Your task to perform on an android device: Find coffee shops on Maps Image 0: 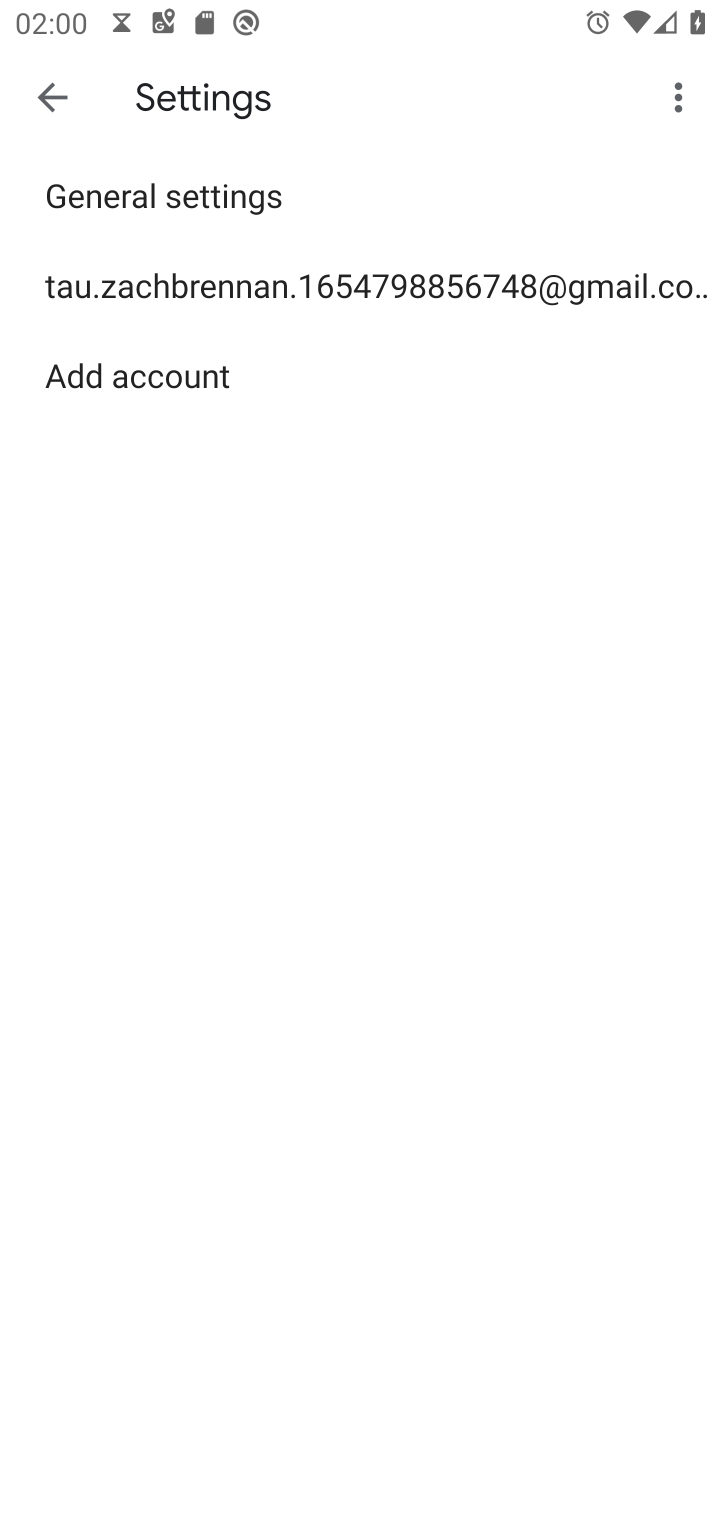
Step 0: press home button
Your task to perform on an android device: Find coffee shops on Maps Image 1: 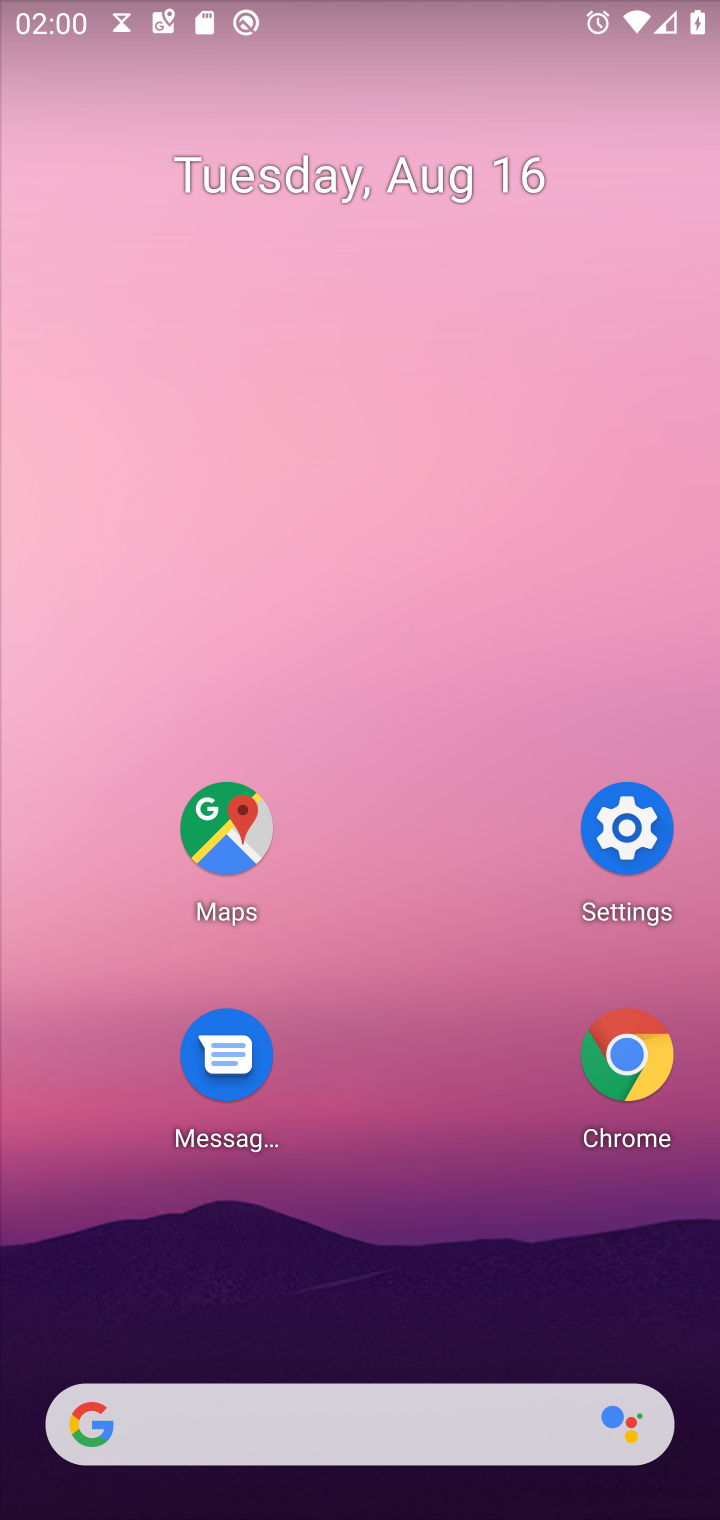
Step 1: click (225, 834)
Your task to perform on an android device: Find coffee shops on Maps Image 2: 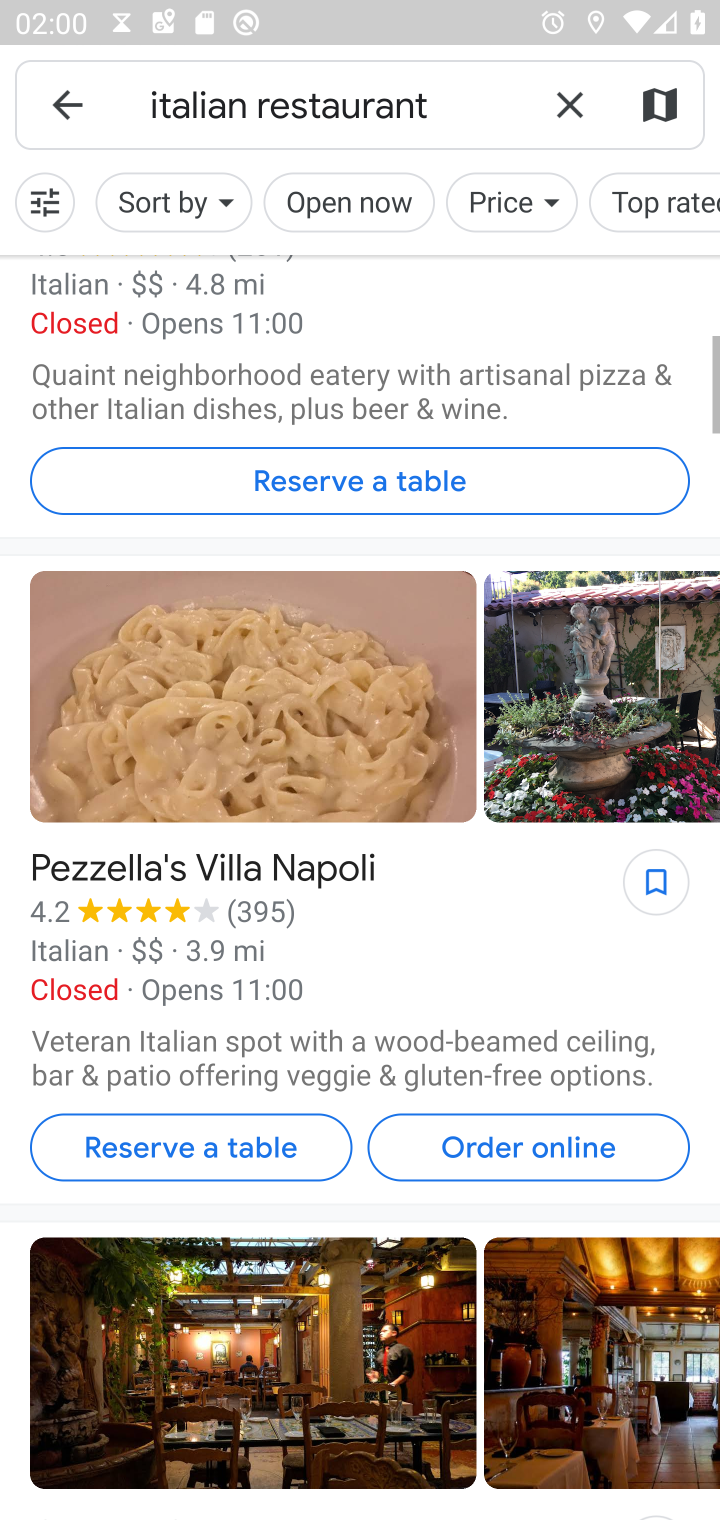
Step 2: click (558, 96)
Your task to perform on an android device: Find coffee shops on Maps Image 3: 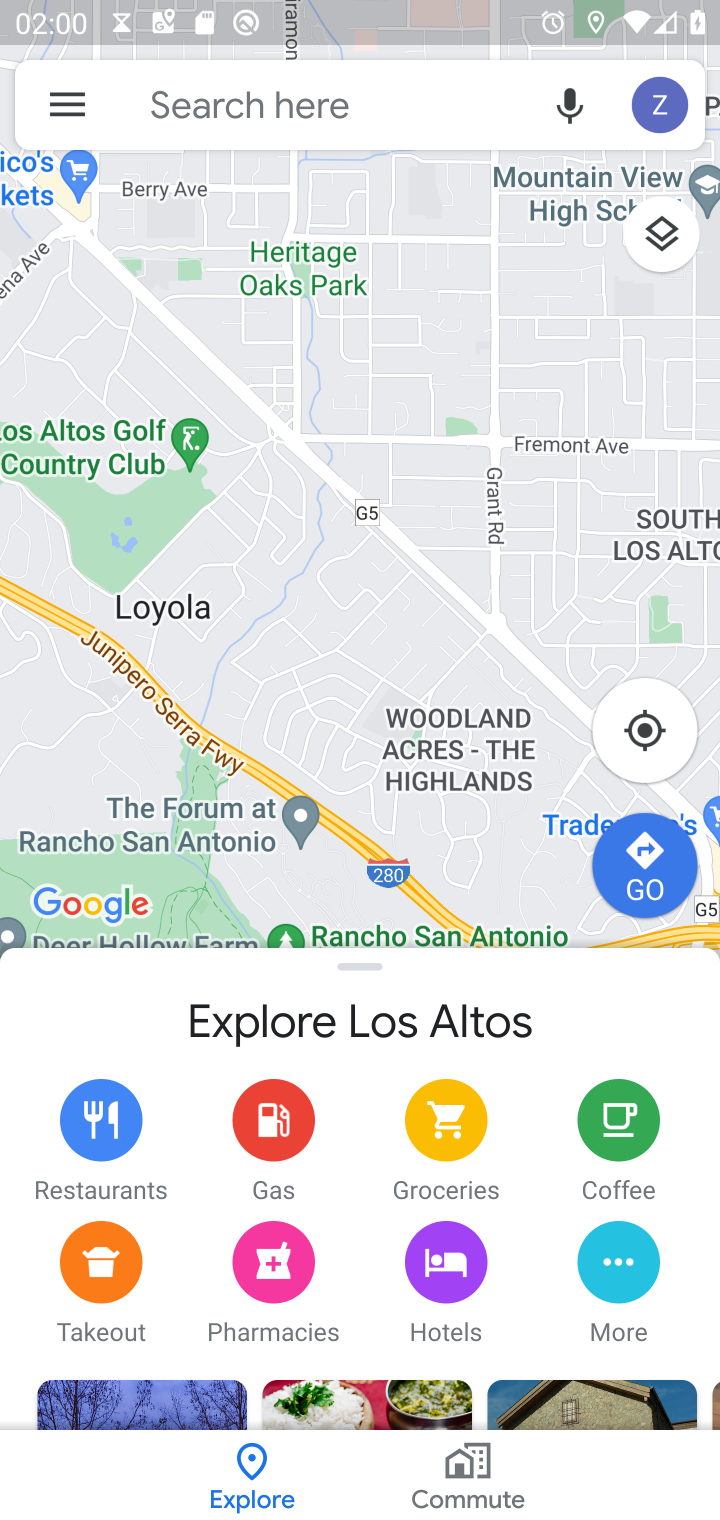
Step 3: click (325, 119)
Your task to perform on an android device: Find coffee shops on Maps Image 4: 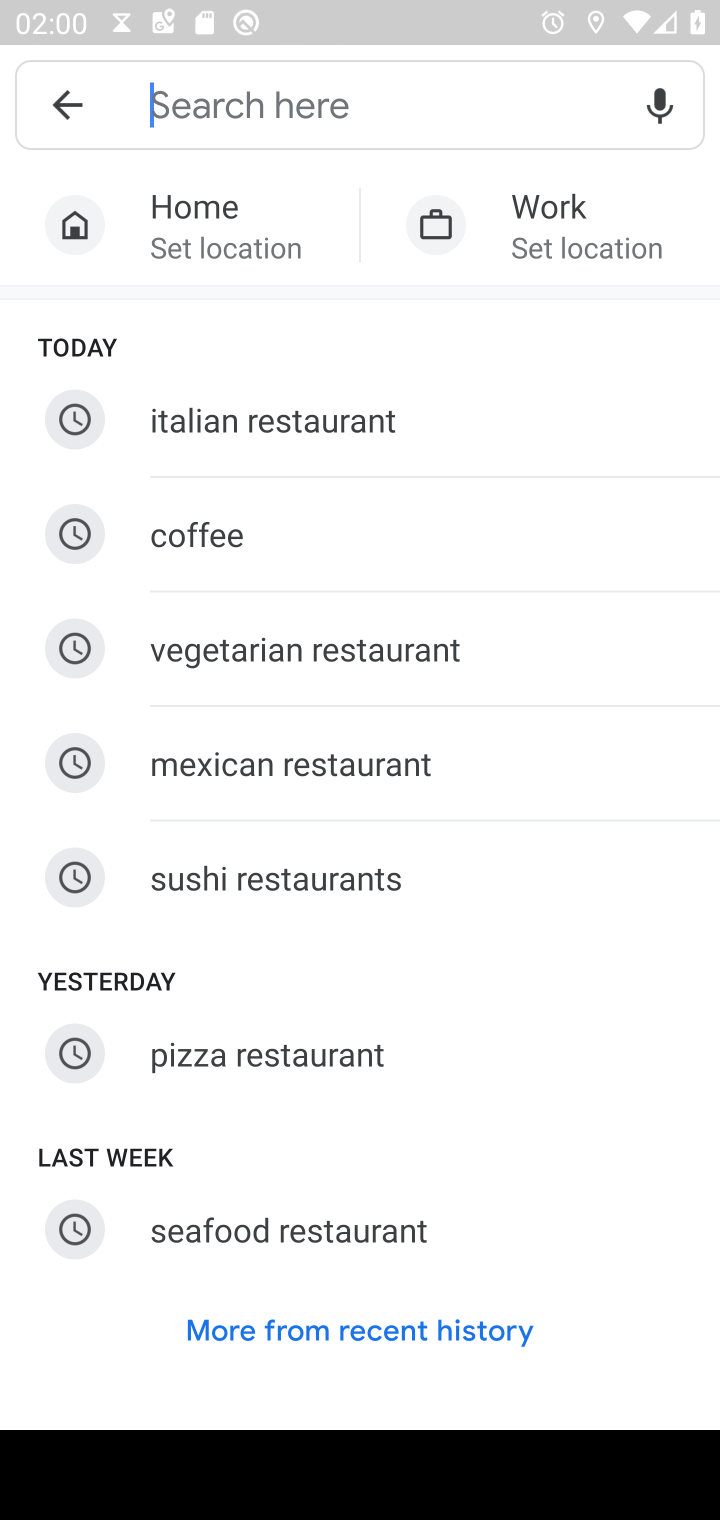
Step 4: click (207, 537)
Your task to perform on an android device: Find coffee shops on Maps Image 5: 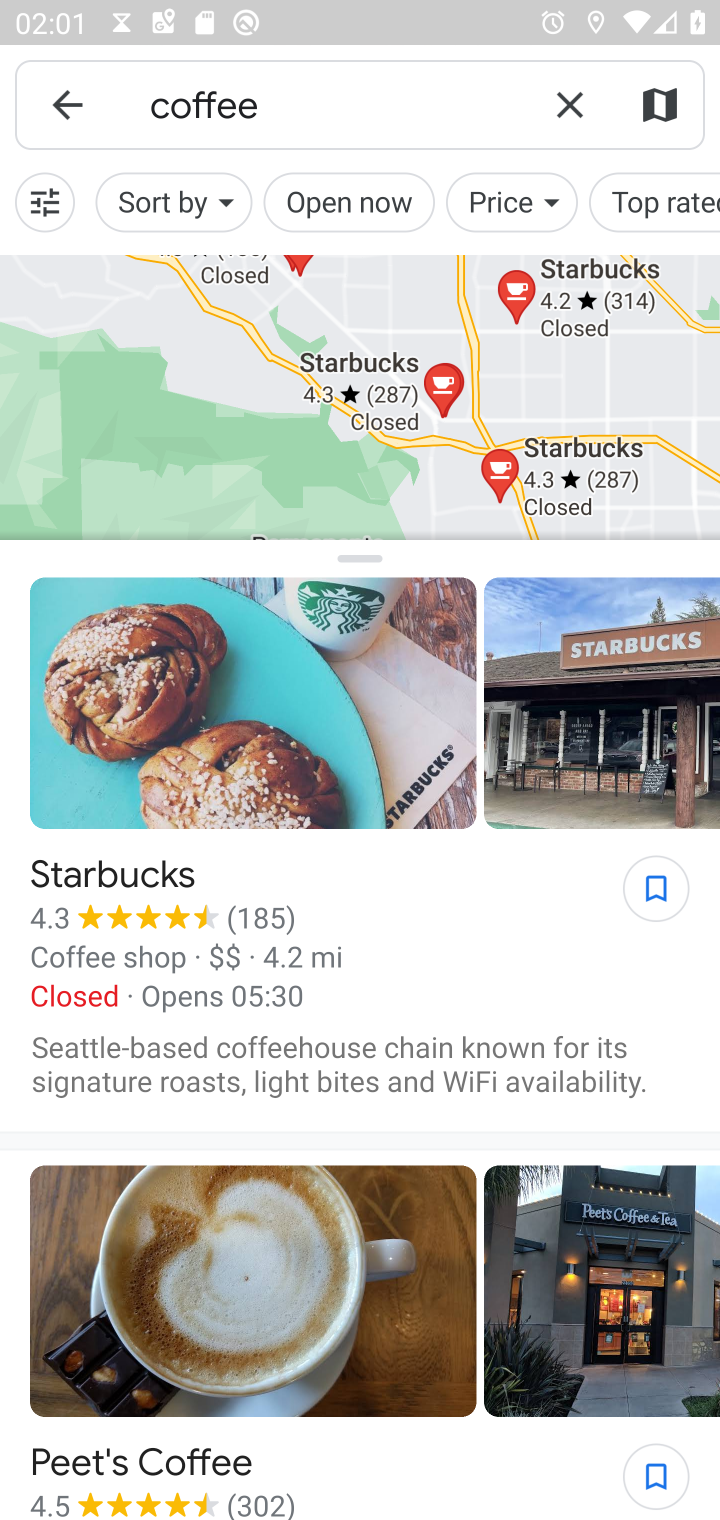
Step 5: task complete